Your task to perform on an android device: What's the weather? Image 0: 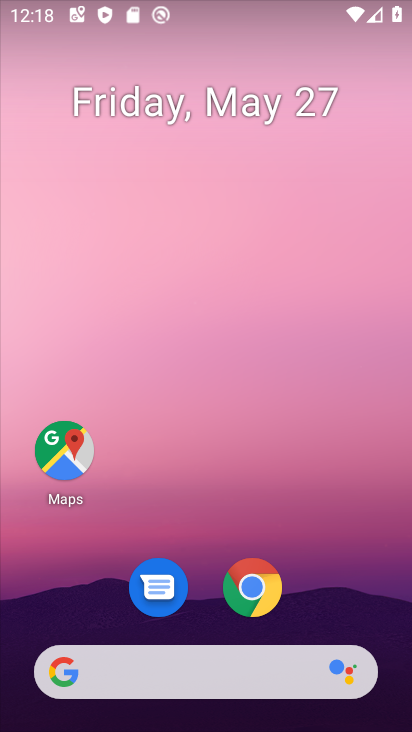
Step 0: drag from (138, 727) to (167, 117)
Your task to perform on an android device: What's the weather? Image 1: 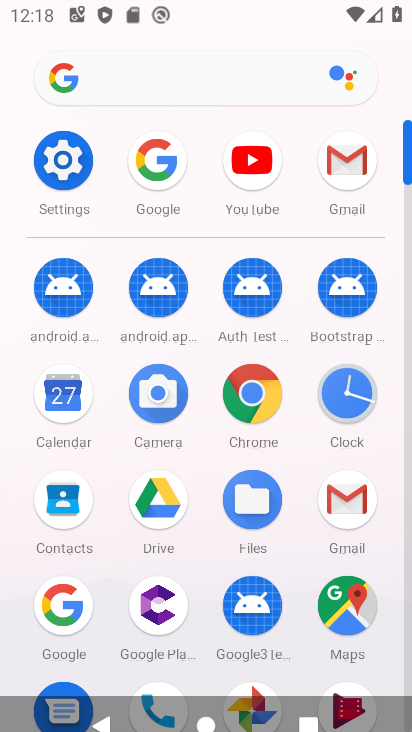
Step 1: click (65, 631)
Your task to perform on an android device: What's the weather? Image 2: 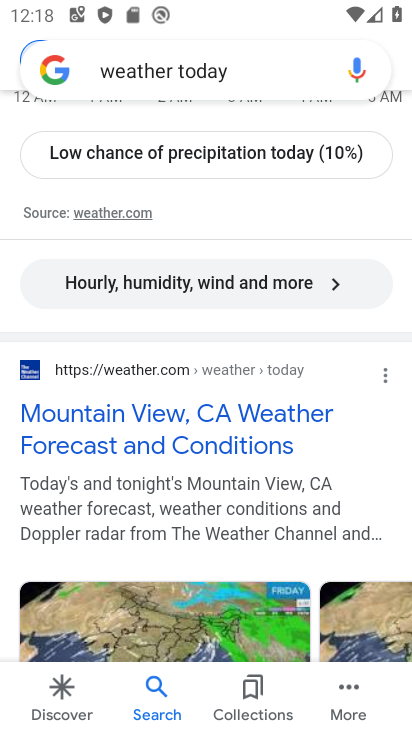
Step 2: task complete